Your task to perform on an android device: turn on showing notifications on the lock screen Image 0: 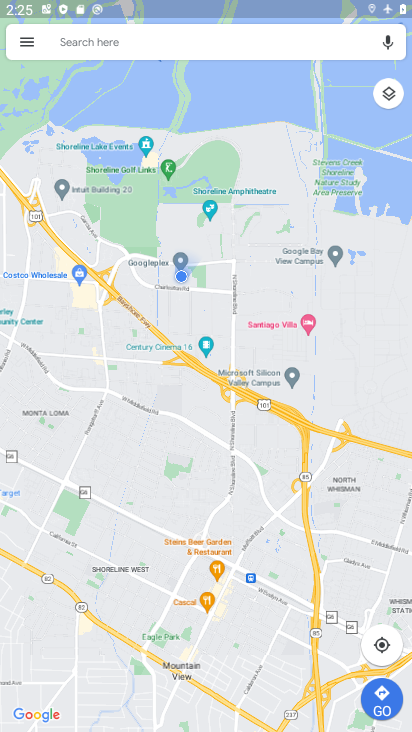
Step 0: press home button
Your task to perform on an android device: turn on showing notifications on the lock screen Image 1: 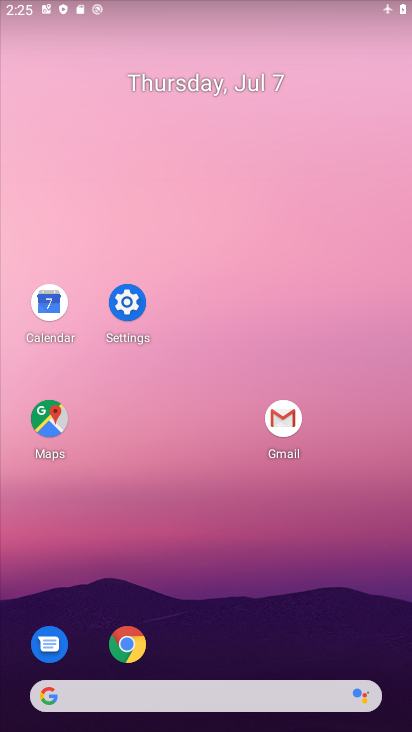
Step 1: drag from (382, 678) to (304, 159)
Your task to perform on an android device: turn on showing notifications on the lock screen Image 2: 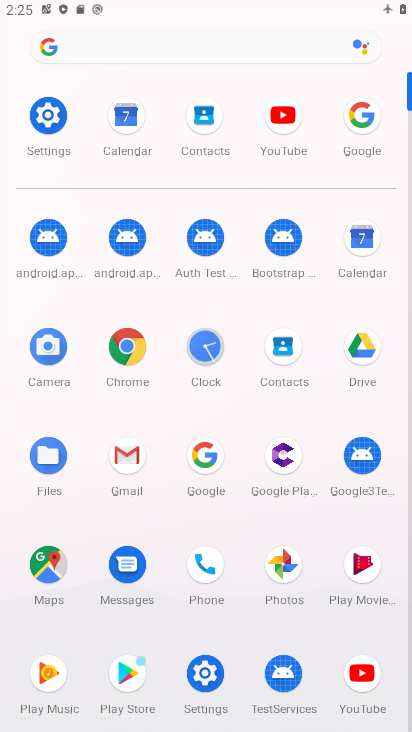
Step 2: click (54, 107)
Your task to perform on an android device: turn on showing notifications on the lock screen Image 3: 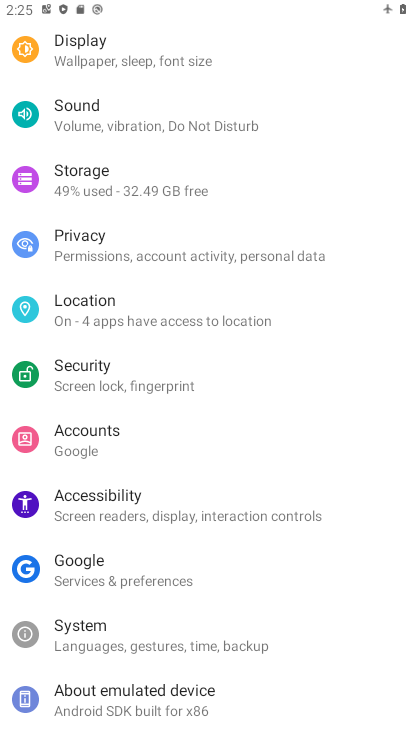
Step 3: drag from (315, 139) to (290, 482)
Your task to perform on an android device: turn on showing notifications on the lock screen Image 4: 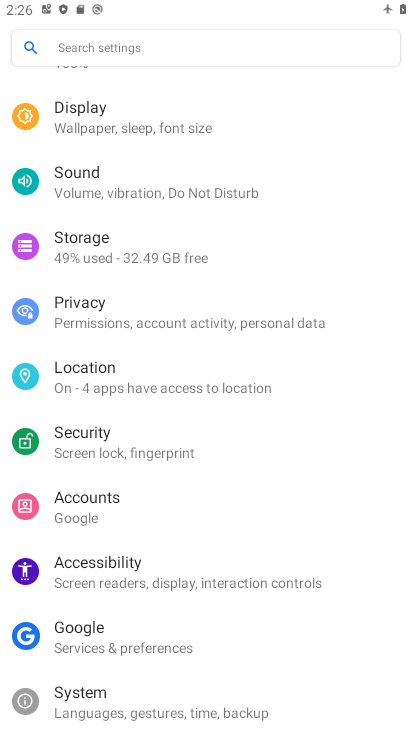
Step 4: drag from (280, 228) to (286, 602)
Your task to perform on an android device: turn on showing notifications on the lock screen Image 5: 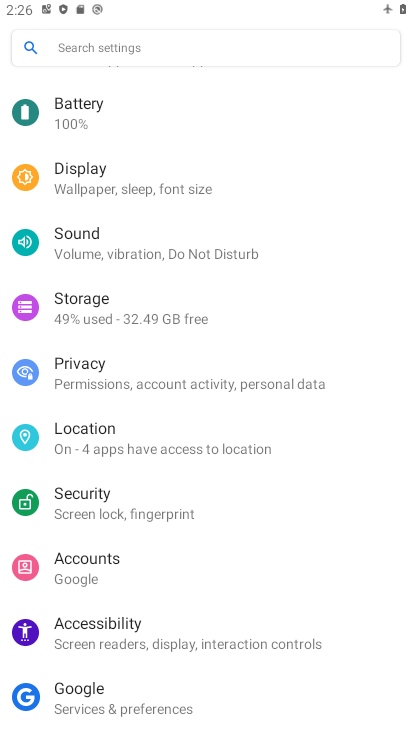
Step 5: drag from (265, 136) to (291, 539)
Your task to perform on an android device: turn on showing notifications on the lock screen Image 6: 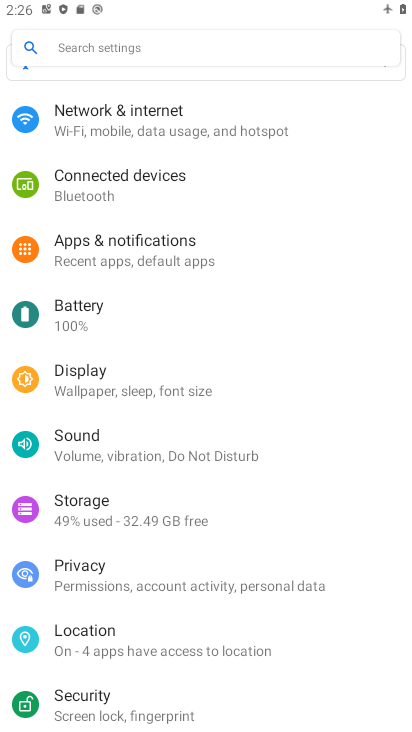
Step 6: click (114, 245)
Your task to perform on an android device: turn on showing notifications on the lock screen Image 7: 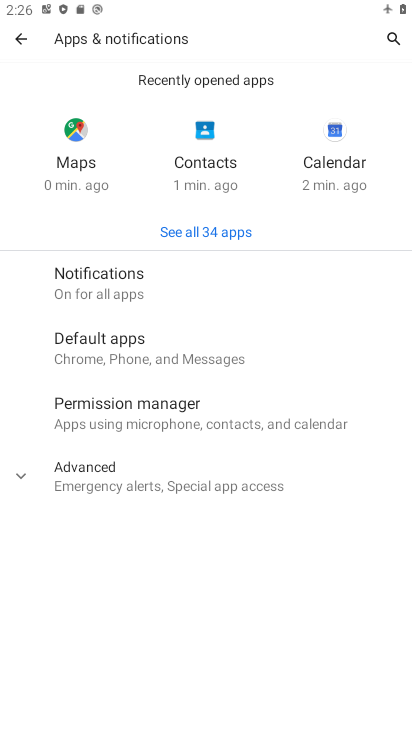
Step 7: click (90, 279)
Your task to perform on an android device: turn on showing notifications on the lock screen Image 8: 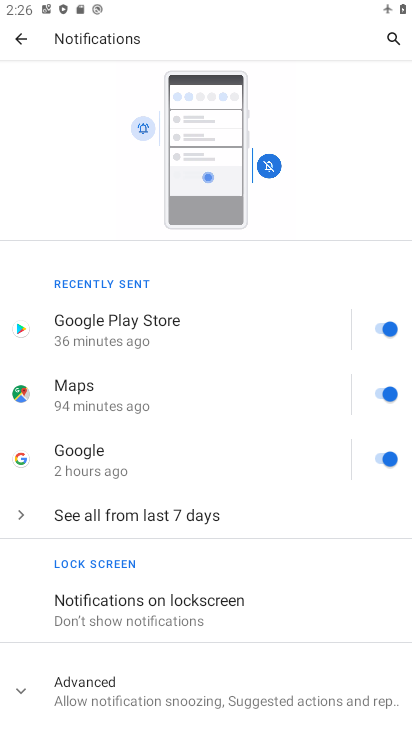
Step 8: click (92, 600)
Your task to perform on an android device: turn on showing notifications on the lock screen Image 9: 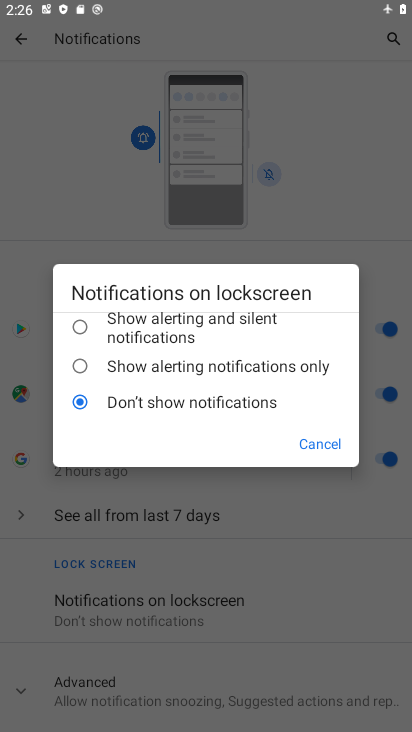
Step 9: click (85, 320)
Your task to perform on an android device: turn on showing notifications on the lock screen Image 10: 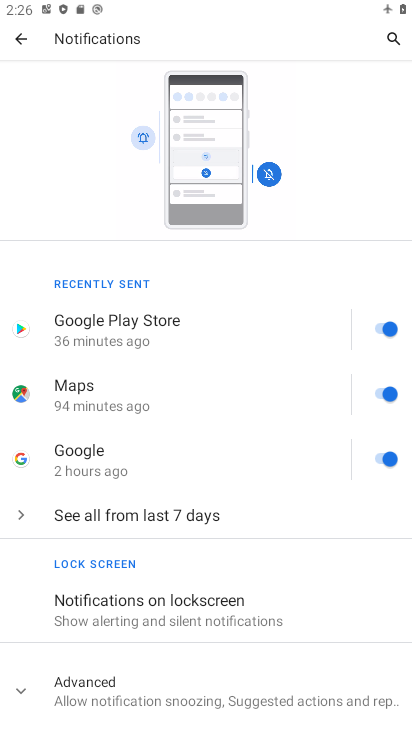
Step 10: task complete